Your task to perform on an android device: Do I have any events today? Image 0: 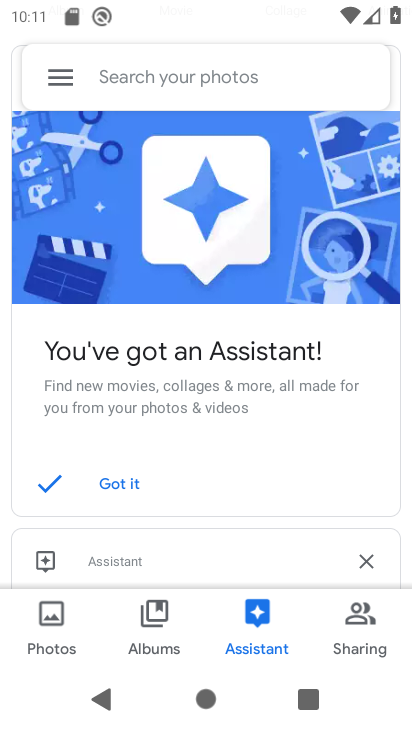
Step 0: press home button
Your task to perform on an android device: Do I have any events today? Image 1: 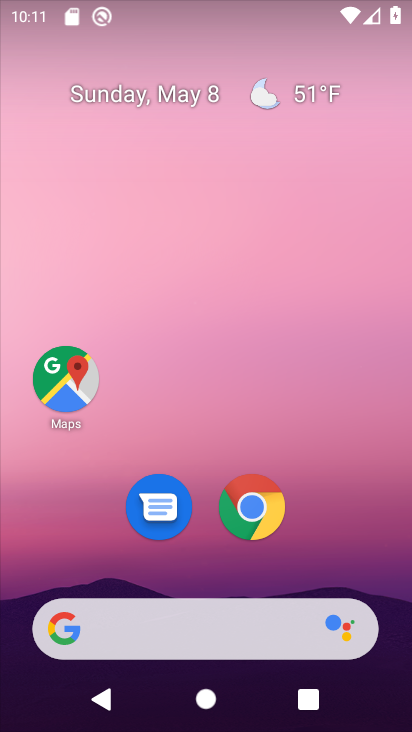
Step 1: task complete